Your task to perform on an android device: Go to Android settings Image 0: 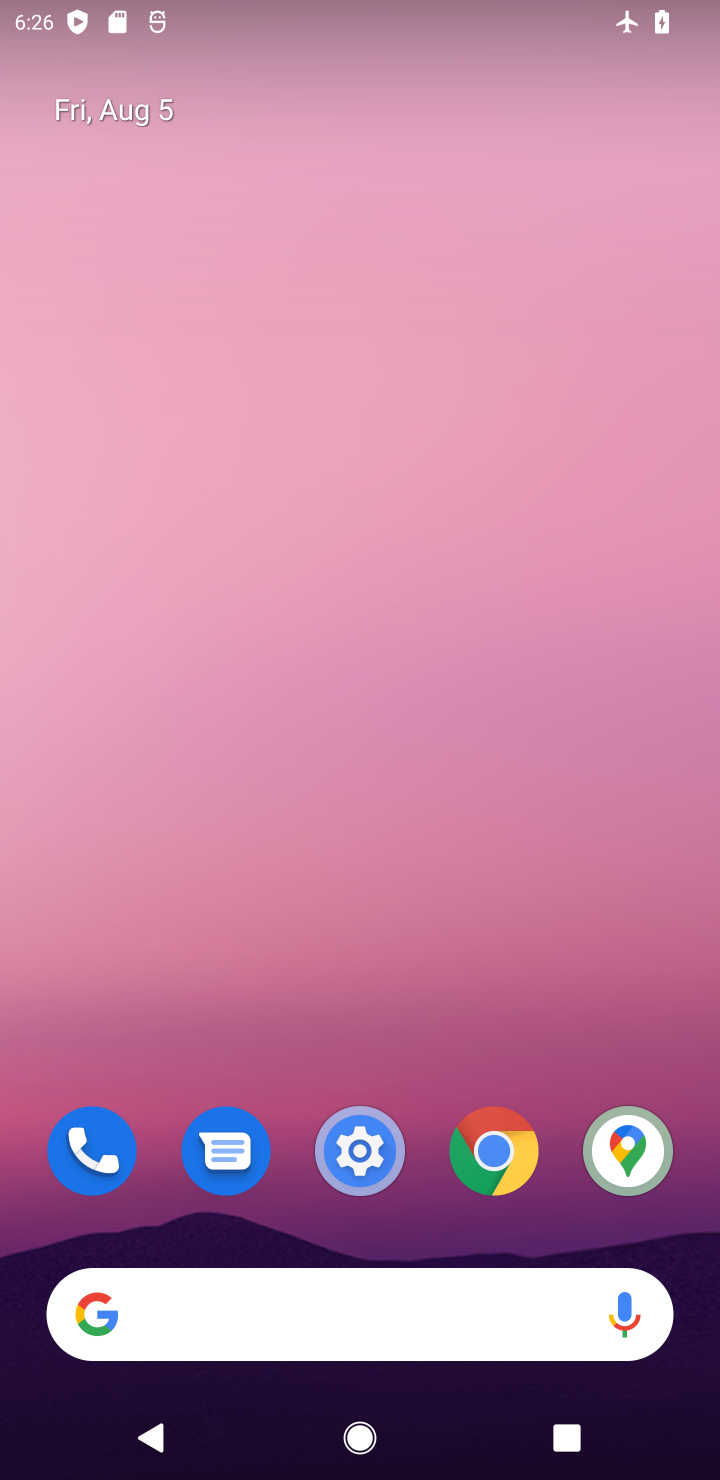
Step 0: drag from (293, 1235) to (240, 194)
Your task to perform on an android device: Go to Android settings Image 1: 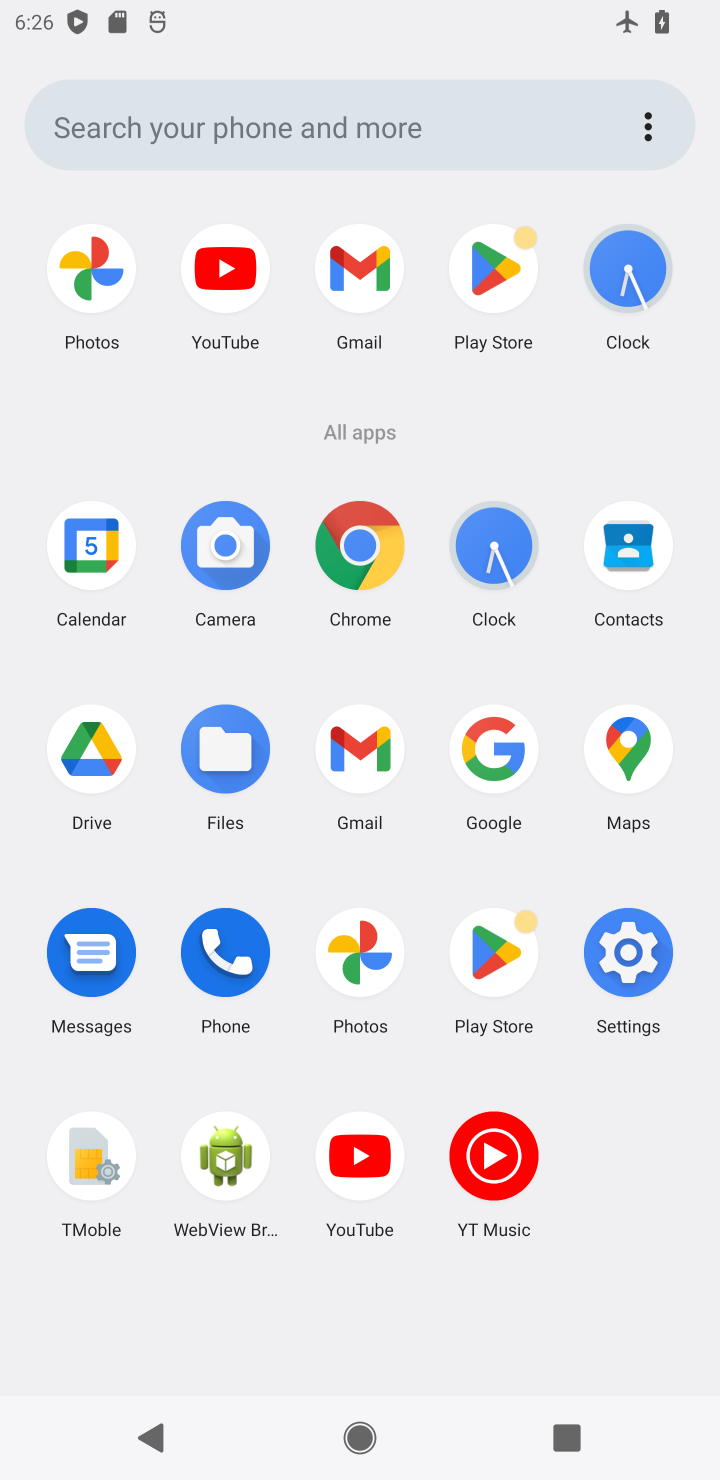
Step 1: click (618, 959)
Your task to perform on an android device: Go to Android settings Image 2: 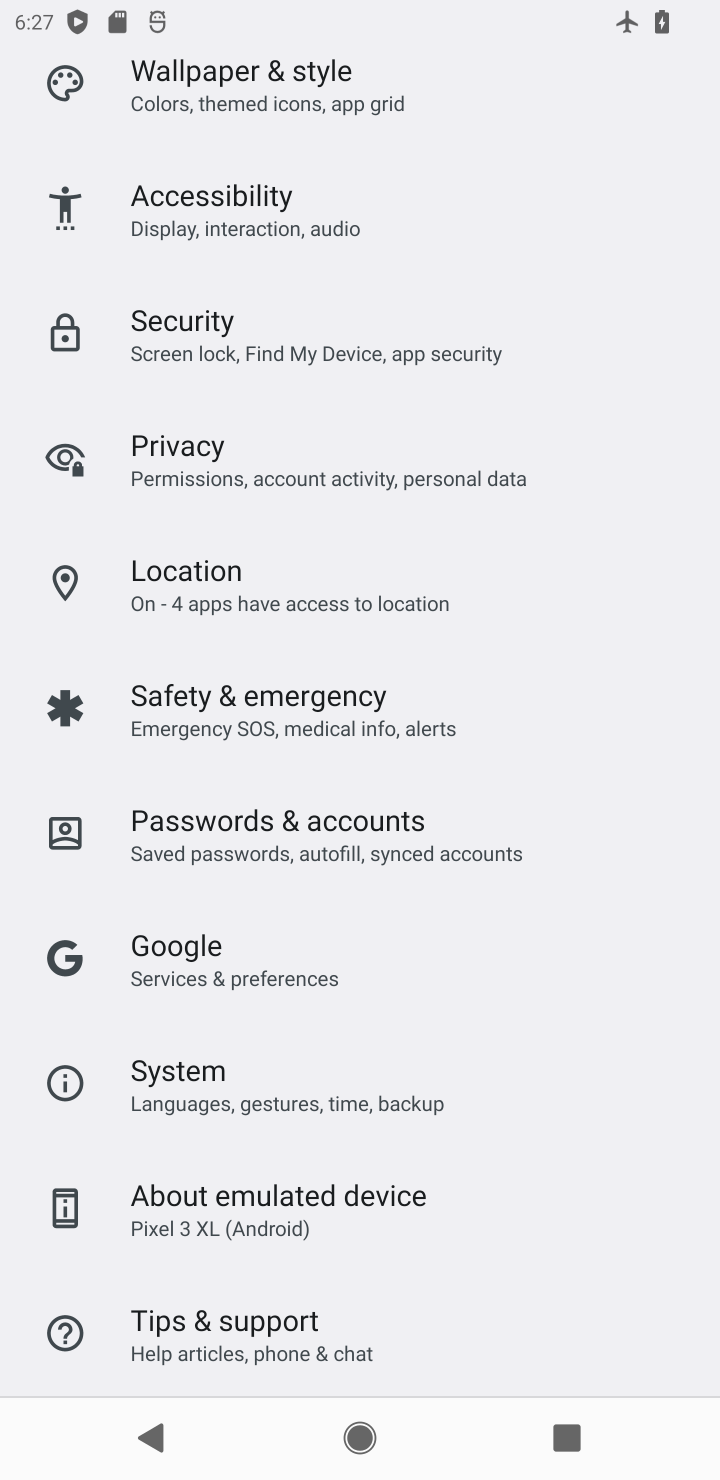
Step 2: task complete